Your task to perform on an android device: Go to Android settings Image 0: 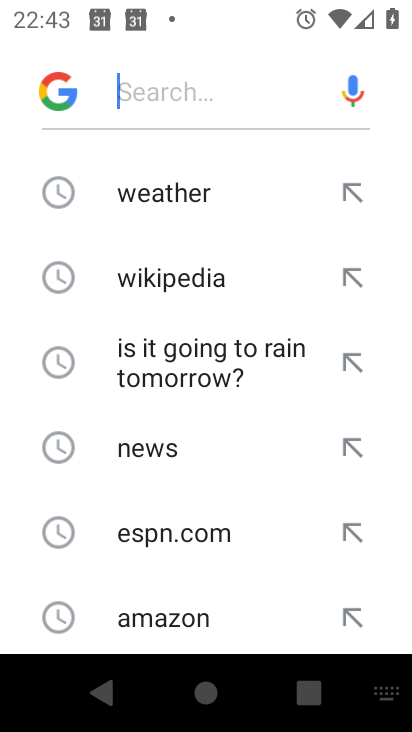
Step 0: press home button
Your task to perform on an android device: Go to Android settings Image 1: 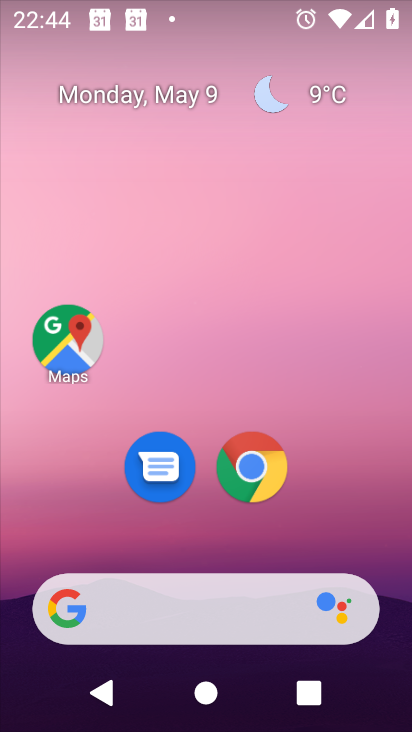
Step 1: drag from (376, 526) to (342, 3)
Your task to perform on an android device: Go to Android settings Image 2: 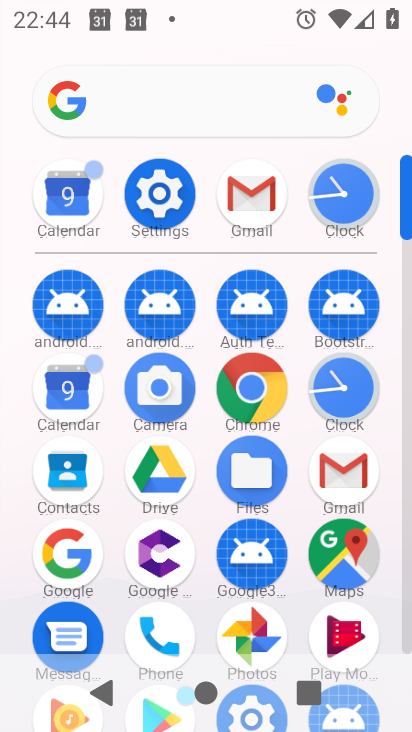
Step 2: click (154, 198)
Your task to perform on an android device: Go to Android settings Image 3: 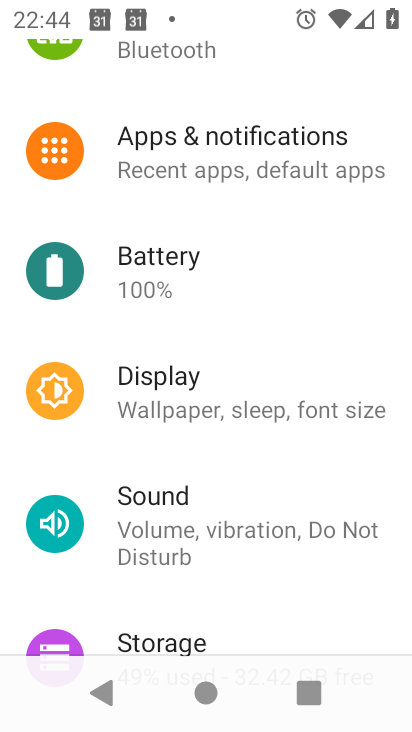
Step 3: task complete